Your task to perform on an android device: Is it going to rain this weekend? Image 0: 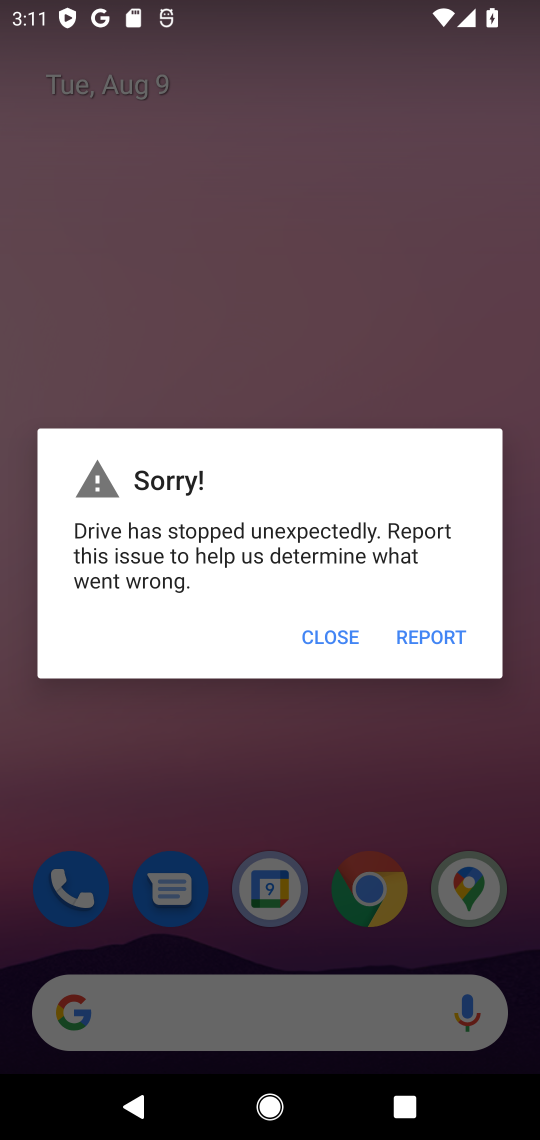
Step 0: press home button
Your task to perform on an android device: Is it going to rain this weekend? Image 1: 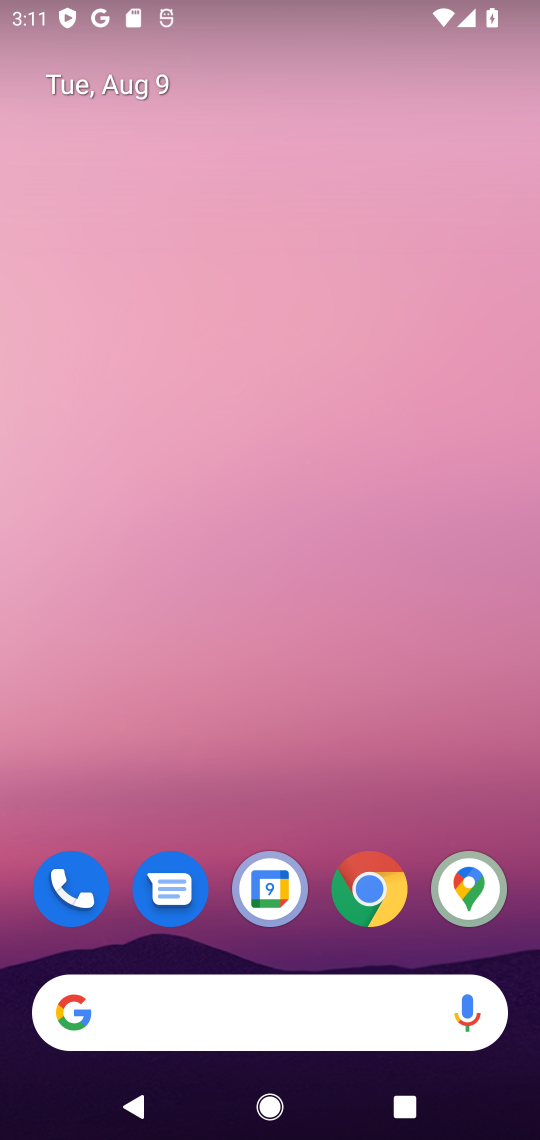
Step 1: click (277, 1017)
Your task to perform on an android device: Is it going to rain this weekend? Image 2: 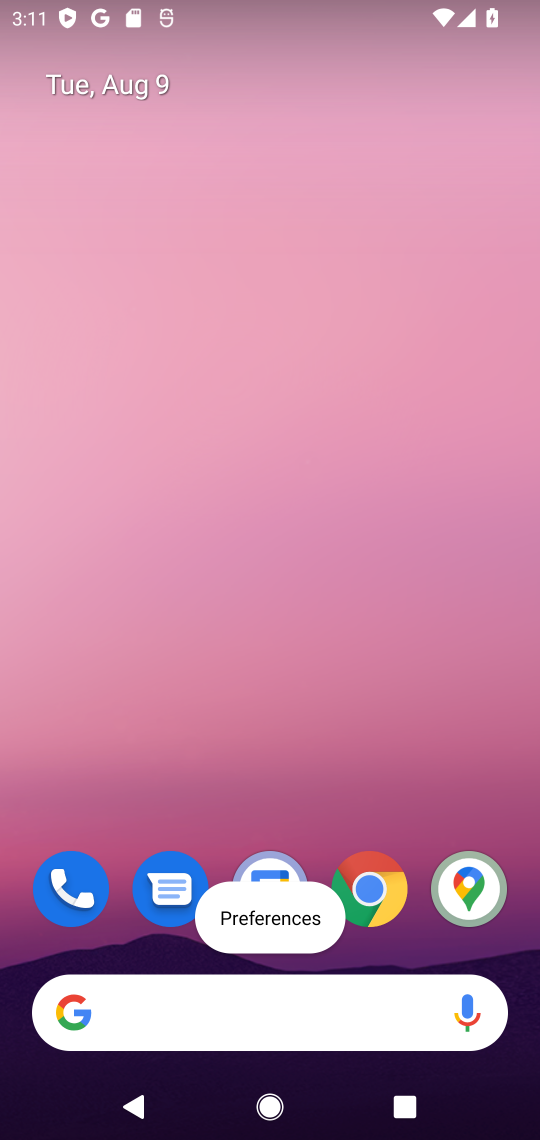
Step 2: click (277, 1017)
Your task to perform on an android device: Is it going to rain this weekend? Image 3: 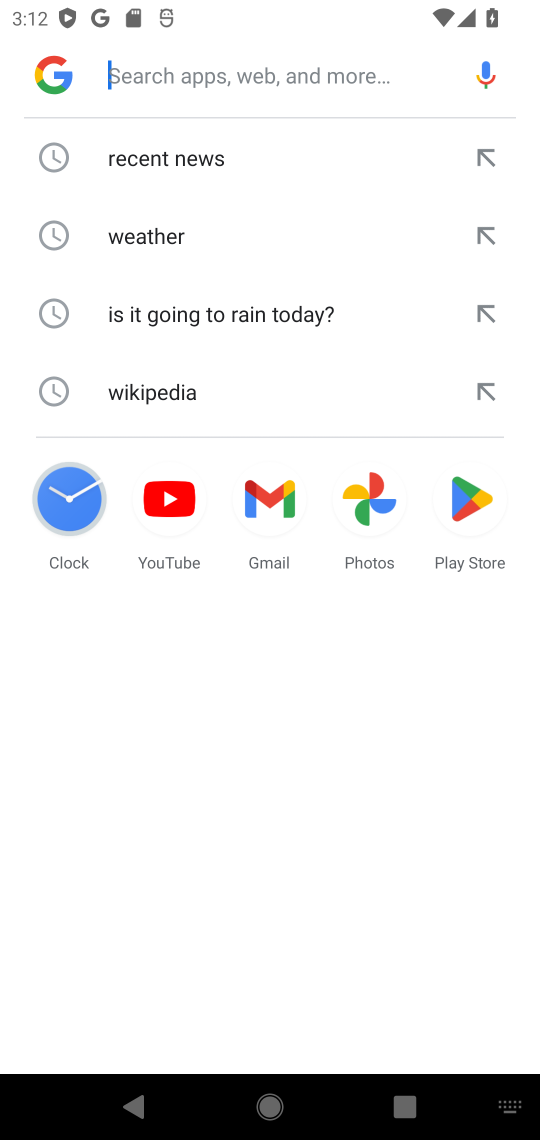
Step 3: click (168, 230)
Your task to perform on an android device: Is it going to rain this weekend? Image 4: 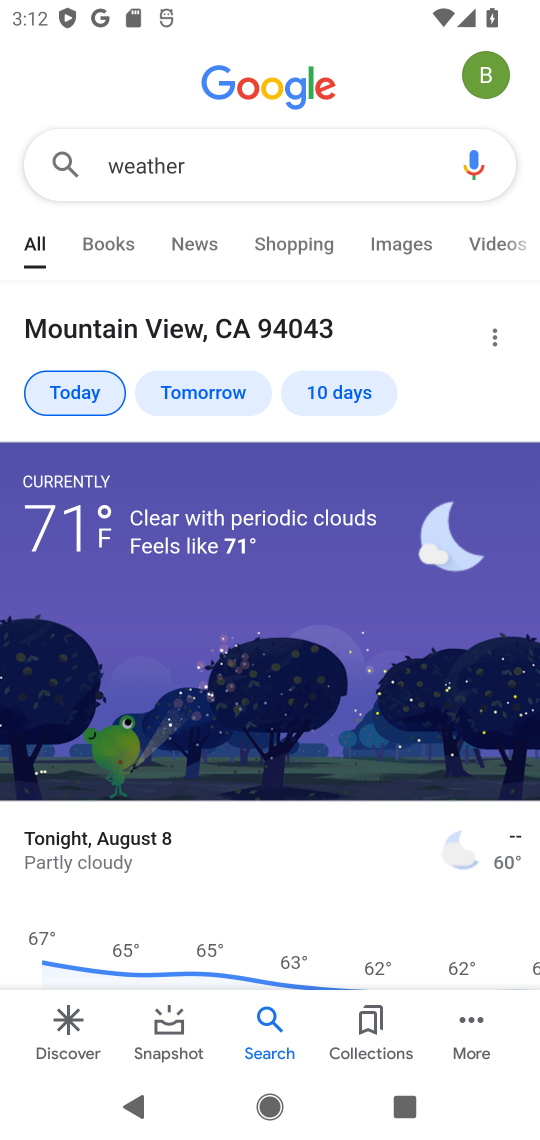
Step 4: click (328, 384)
Your task to perform on an android device: Is it going to rain this weekend? Image 5: 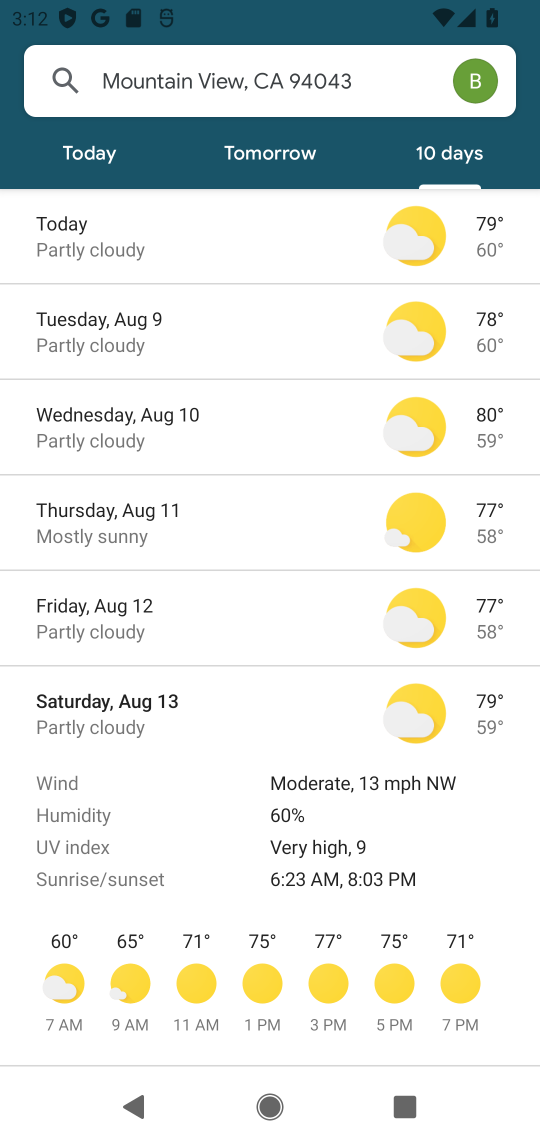
Step 5: task complete